Your task to perform on an android device: Open Google Chrome and click the shortcut for Amazon.com Image 0: 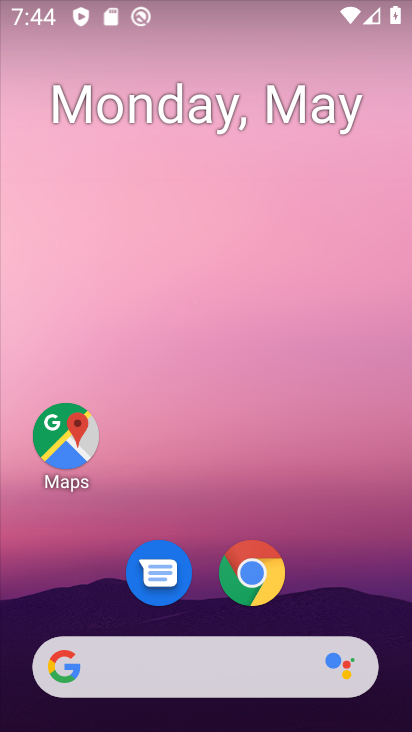
Step 0: click (264, 568)
Your task to perform on an android device: Open Google Chrome and click the shortcut for Amazon.com Image 1: 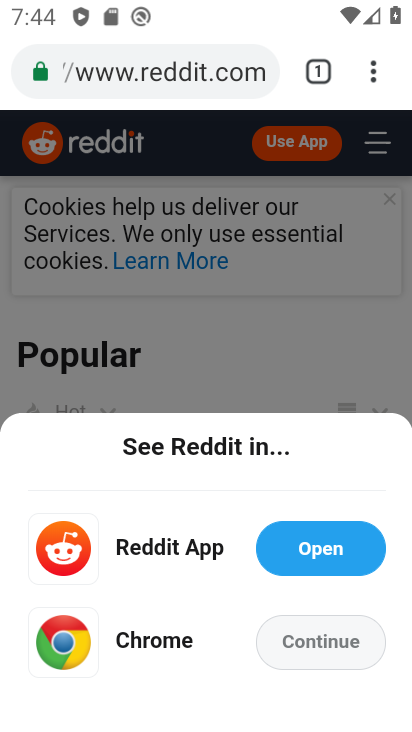
Step 1: click (303, 637)
Your task to perform on an android device: Open Google Chrome and click the shortcut for Amazon.com Image 2: 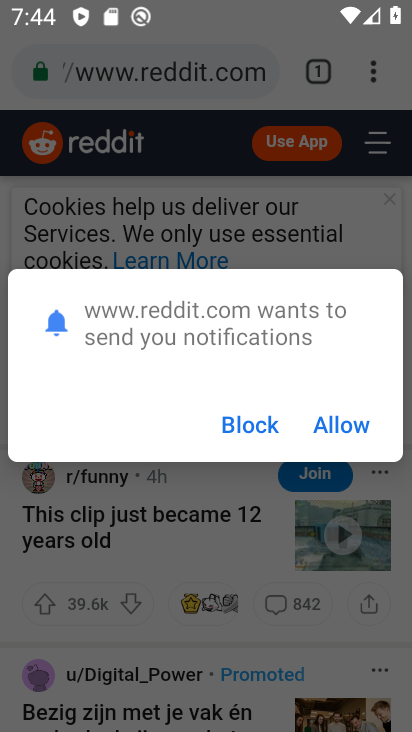
Step 2: click (333, 436)
Your task to perform on an android device: Open Google Chrome and click the shortcut for Amazon.com Image 3: 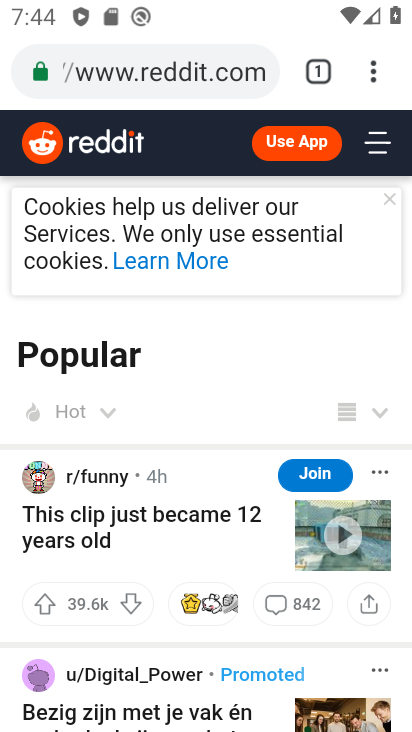
Step 3: click (315, 84)
Your task to perform on an android device: Open Google Chrome and click the shortcut for Amazon.com Image 4: 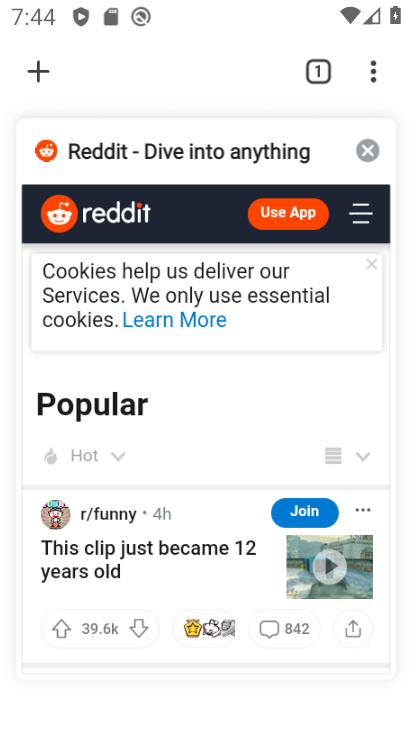
Step 4: click (23, 73)
Your task to perform on an android device: Open Google Chrome and click the shortcut for Amazon.com Image 5: 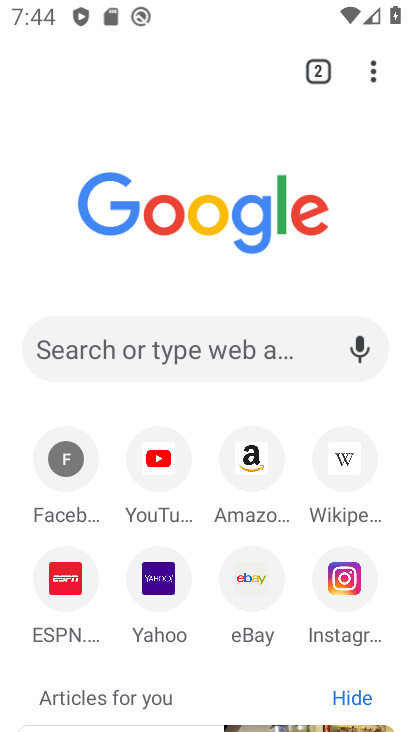
Step 5: click (245, 470)
Your task to perform on an android device: Open Google Chrome and click the shortcut for Amazon.com Image 6: 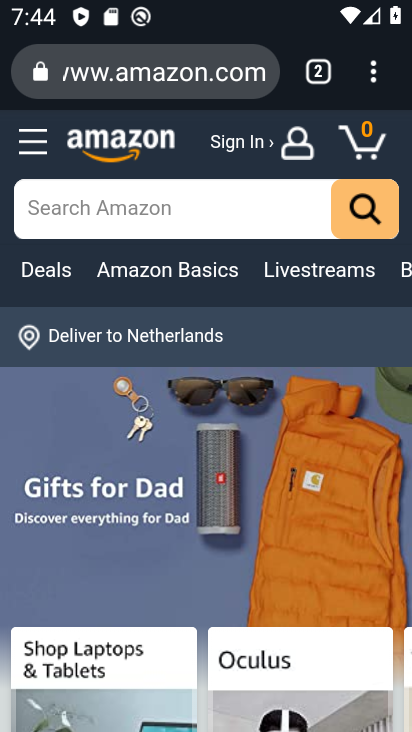
Step 6: task complete